Your task to perform on an android device: Turn on the flashlight Image 0: 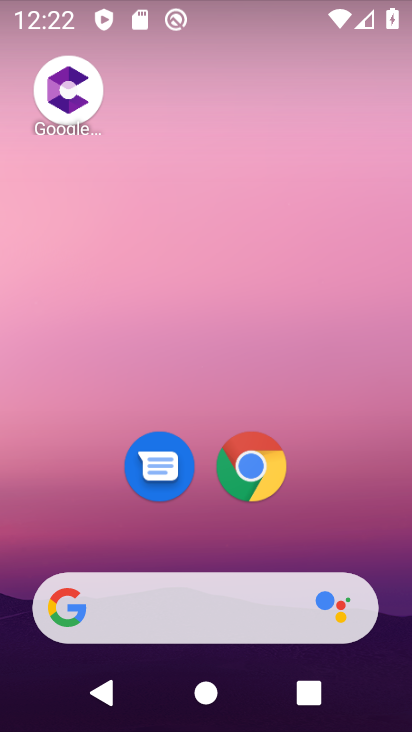
Step 0: drag from (181, 537) to (258, 0)
Your task to perform on an android device: Turn on the flashlight Image 1: 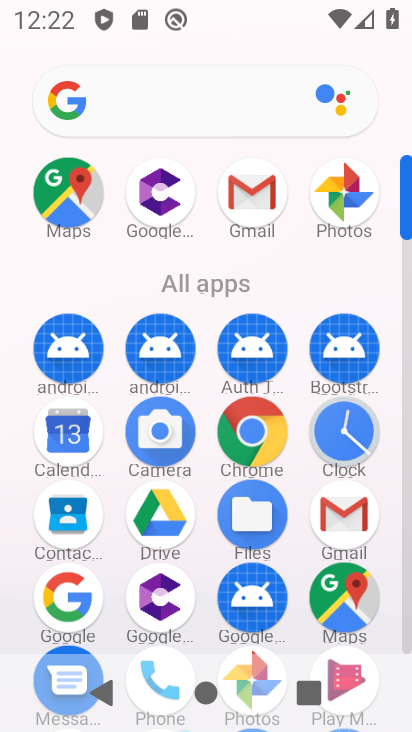
Step 1: drag from (226, 348) to (242, 152)
Your task to perform on an android device: Turn on the flashlight Image 2: 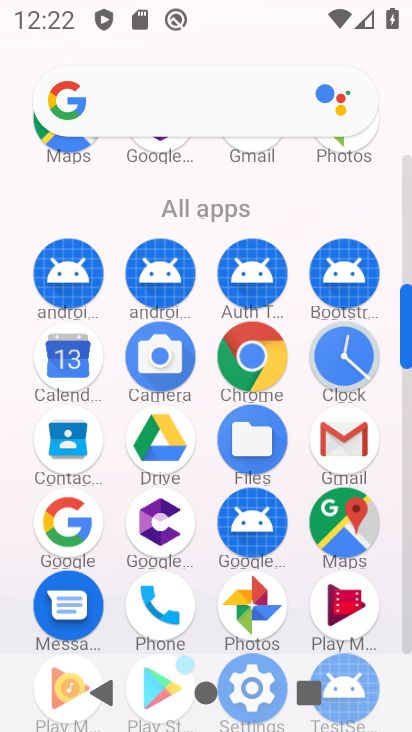
Step 2: drag from (260, 626) to (313, 258)
Your task to perform on an android device: Turn on the flashlight Image 3: 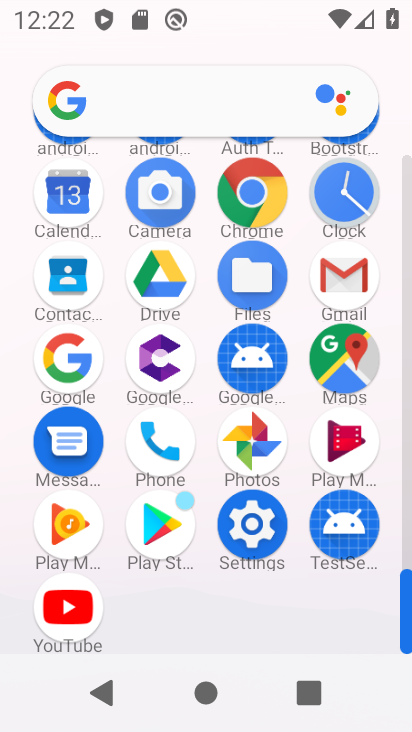
Step 3: click (248, 525)
Your task to perform on an android device: Turn on the flashlight Image 4: 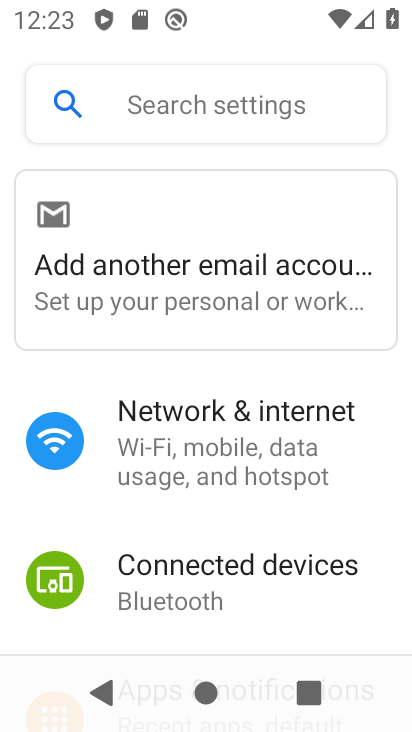
Step 4: task complete